Your task to perform on an android device: toggle priority inbox in the gmail app Image 0: 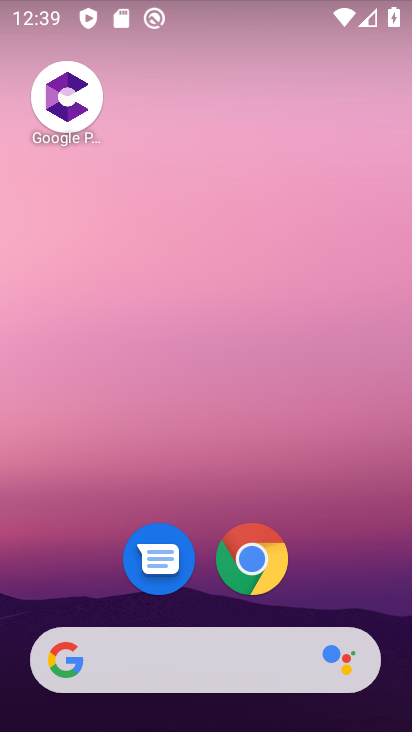
Step 0: drag from (236, 711) to (235, 139)
Your task to perform on an android device: toggle priority inbox in the gmail app Image 1: 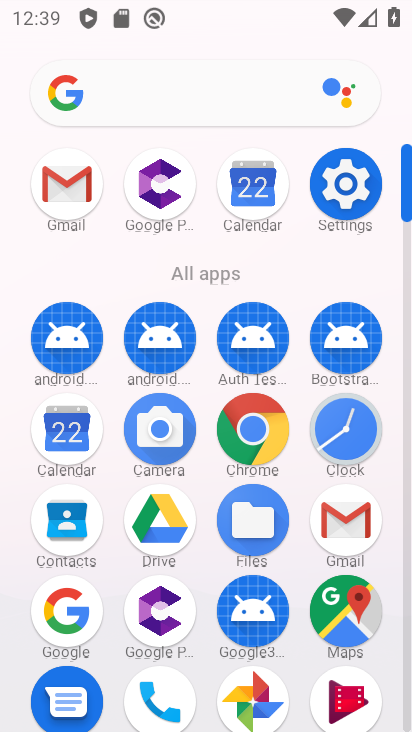
Step 1: click (79, 177)
Your task to perform on an android device: toggle priority inbox in the gmail app Image 2: 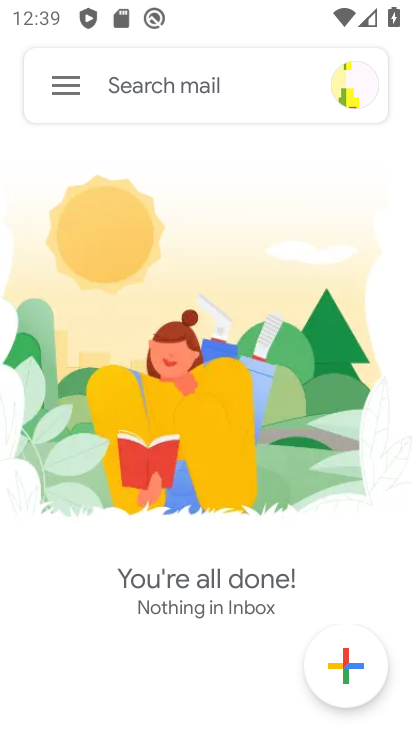
Step 2: click (66, 86)
Your task to perform on an android device: toggle priority inbox in the gmail app Image 3: 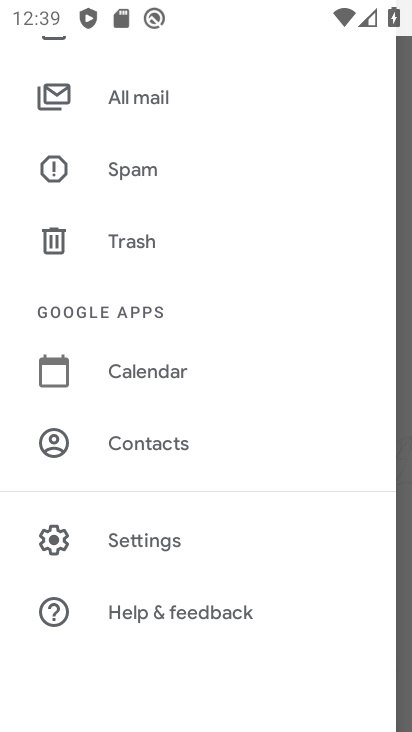
Step 3: click (143, 537)
Your task to perform on an android device: toggle priority inbox in the gmail app Image 4: 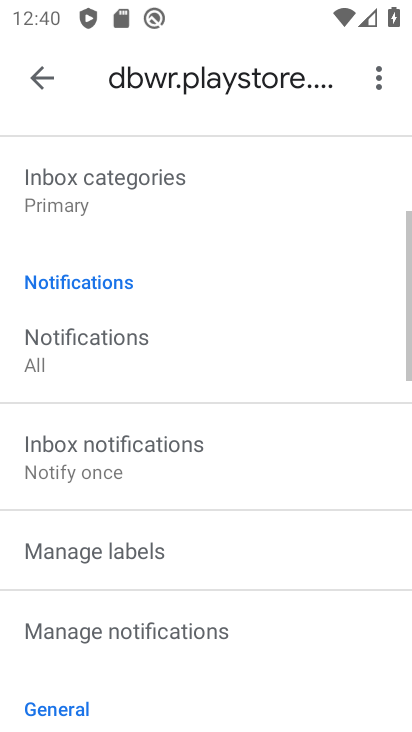
Step 4: drag from (155, 650) to (256, 730)
Your task to perform on an android device: toggle priority inbox in the gmail app Image 5: 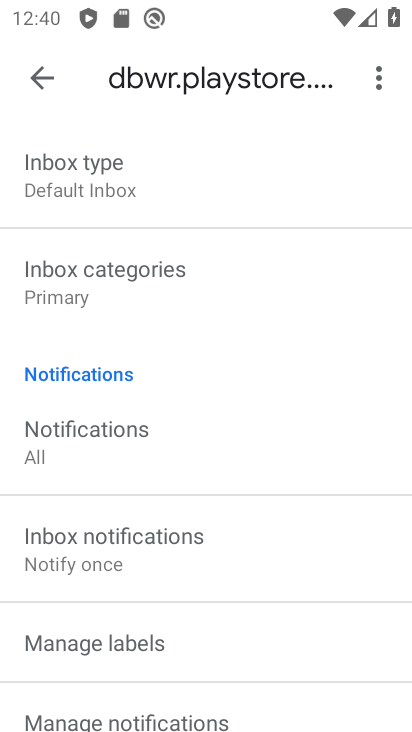
Step 5: click (75, 177)
Your task to perform on an android device: toggle priority inbox in the gmail app Image 6: 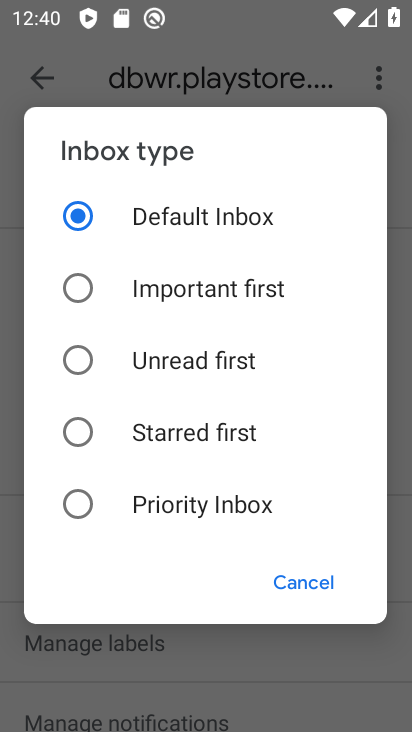
Step 6: click (70, 500)
Your task to perform on an android device: toggle priority inbox in the gmail app Image 7: 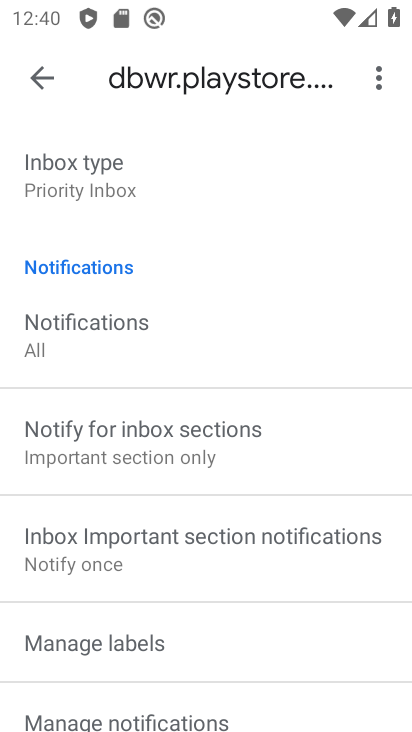
Step 7: task complete